Your task to perform on an android device: Open privacy settings Image 0: 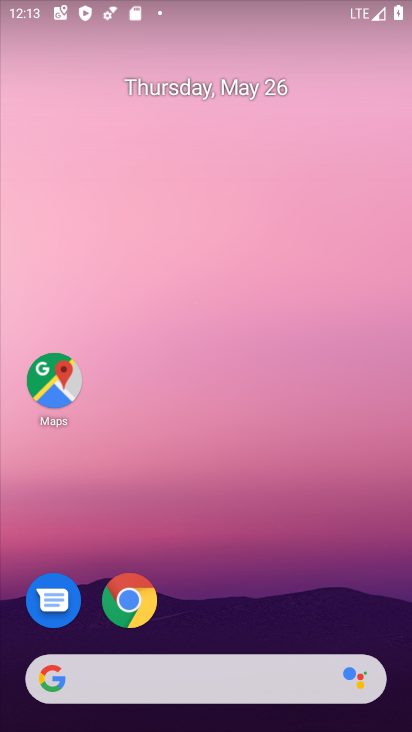
Step 0: drag from (293, 554) to (295, 151)
Your task to perform on an android device: Open privacy settings Image 1: 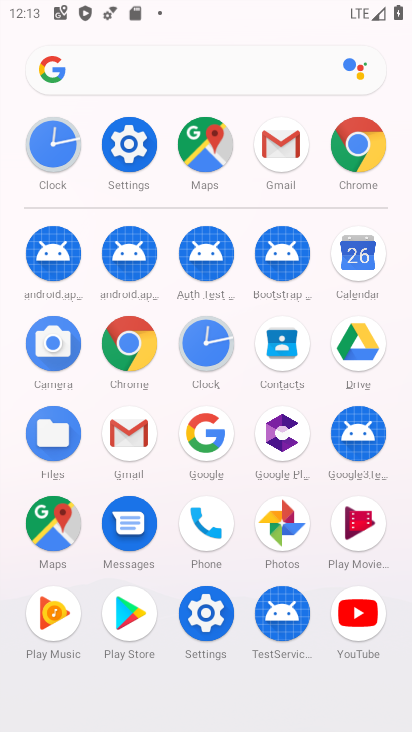
Step 1: click (121, 159)
Your task to perform on an android device: Open privacy settings Image 2: 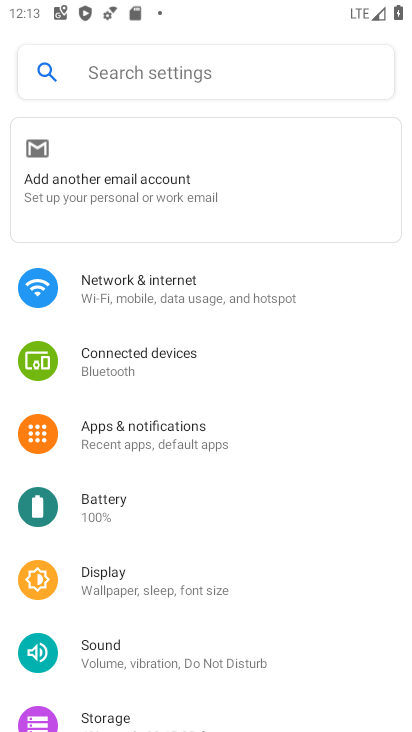
Step 2: drag from (163, 617) to (254, 222)
Your task to perform on an android device: Open privacy settings Image 3: 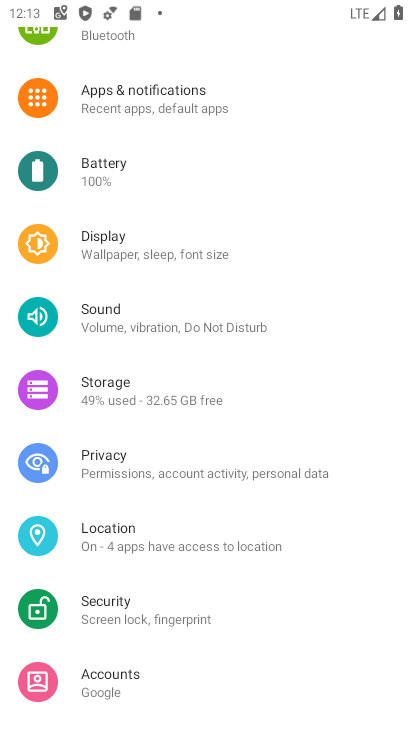
Step 3: click (189, 479)
Your task to perform on an android device: Open privacy settings Image 4: 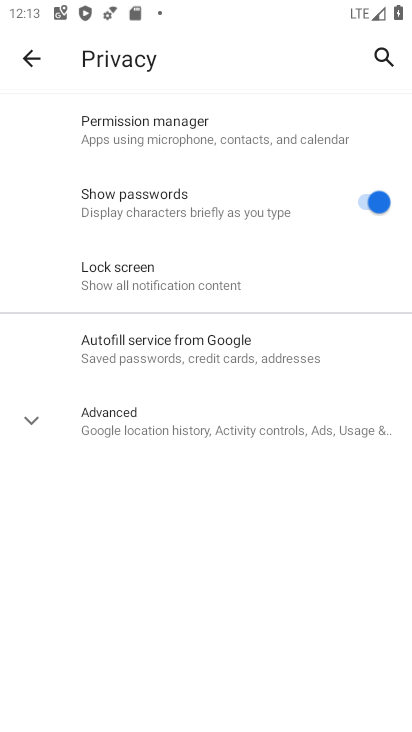
Step 4: task complete